Your task to perform on an android device: Search for pizza restaurants on Maps Image 0: 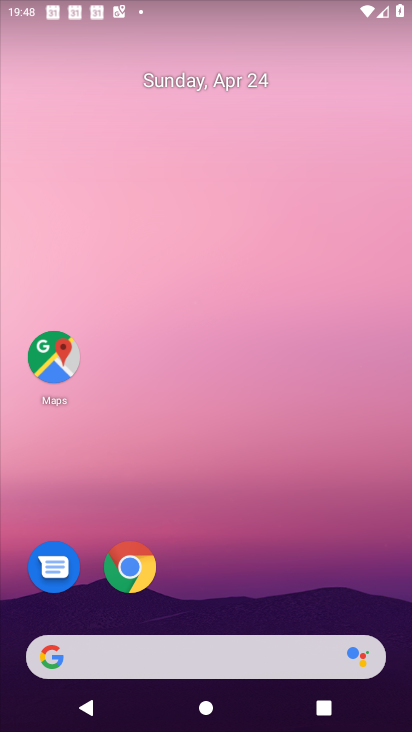
Step 0: drag from (312, 515) to (314, 184)
Your task to perform on an android device: Search for pizza restaurants on Maps Image 1: 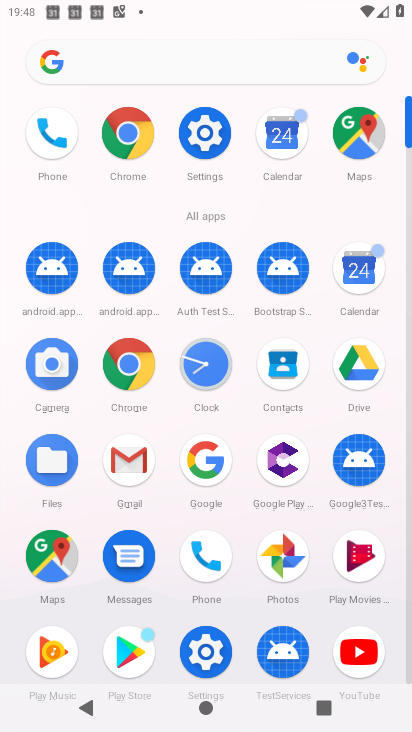
Step 1: click (365, 136)
Your task to perform on an android device: Search for pizza restaurants on Maps Image 2: 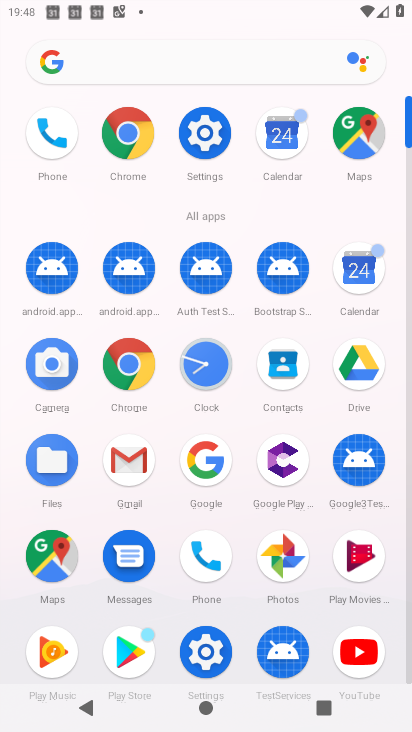
Step 2: click (356, 141)
Your task to perform on an android device: Search for pizza restaurants on Maps Image 3: 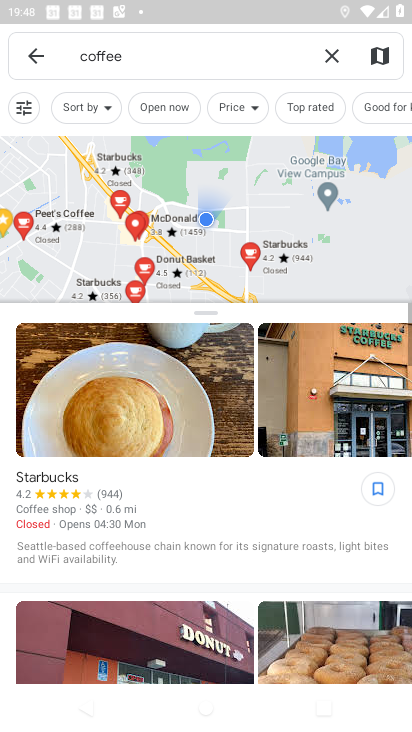
Step 3: click (336, 56)
Your task to perform on an android device: Search for pizza restaurants on Maps Image 4: 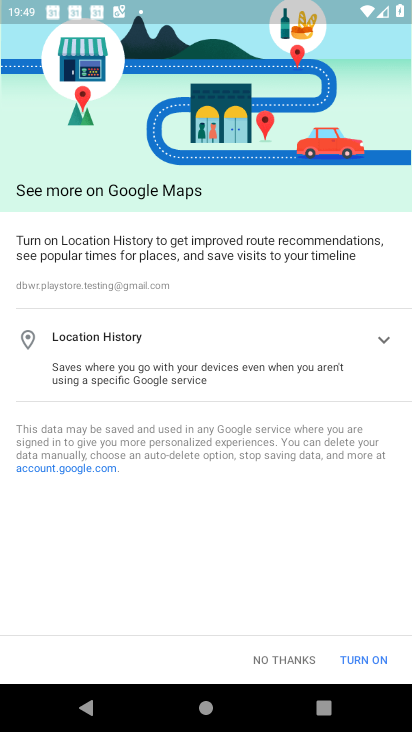
Step 4: click (273, 662)
Your task to perform on an android device: Search for pizza restaurants on Maps Image 5: 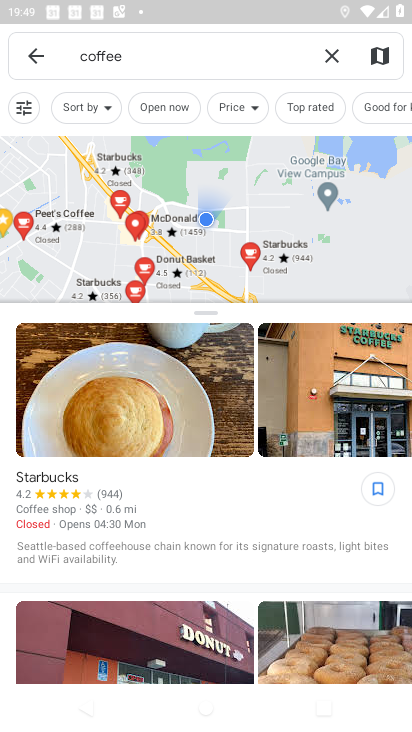
Step 5: click (325, 56)
Your task to perform on an android device: Search for pizza restaurants on Maps Image 6: 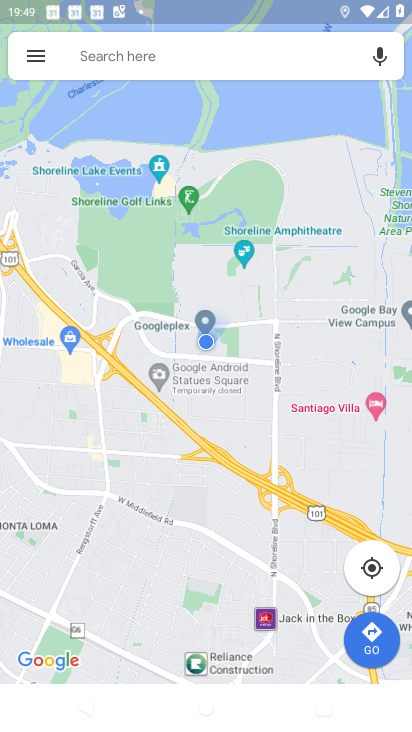
Step 6: click (172, 62)
Your task to perform on an android device: Search for pizza restaurants on Maps Image 7: 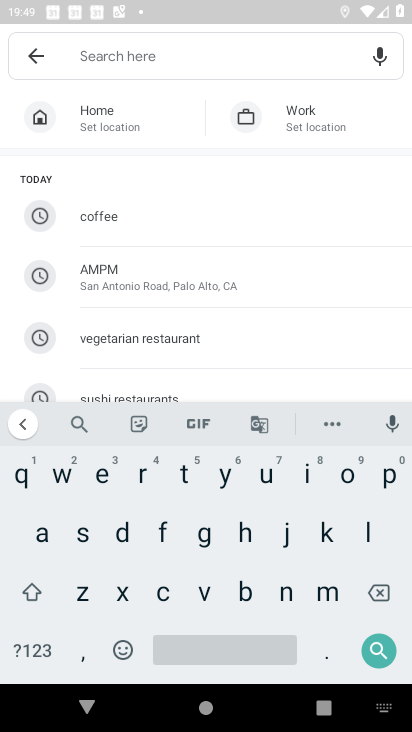
Step 7: drag from (152, 318) to (179, 208)
Your task to perform on an android device: Search for pizza restaurants on Maps Image 8: 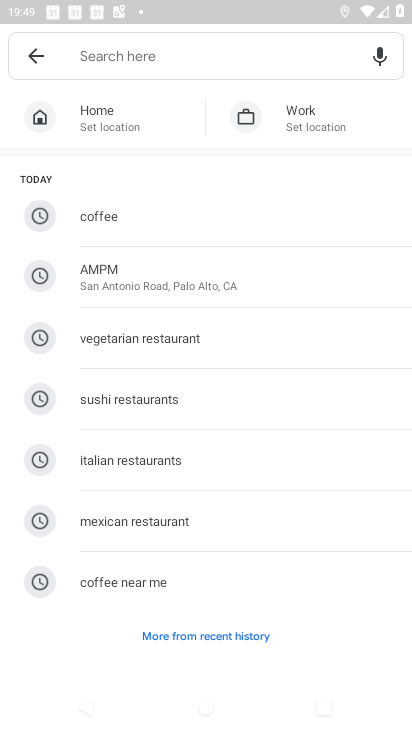
Step 8: click (160, 61)
Your task to perform on an android device: Search for pizza restaurants on Maps Image 9: 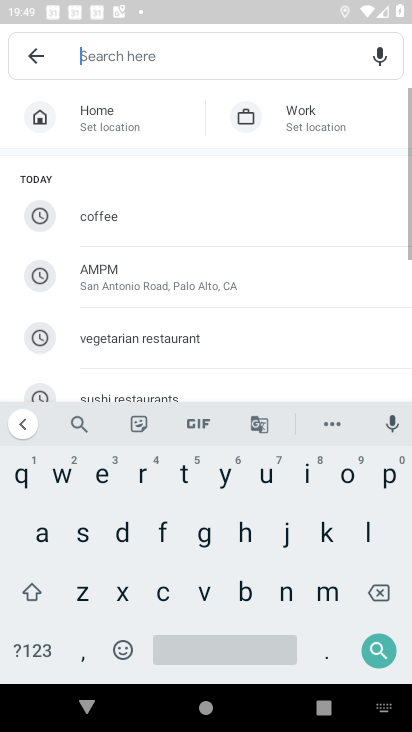
Step 9: click (390, 482)
Your task to perform on an android device: Search for pizza restaurants on Maps Image 10: 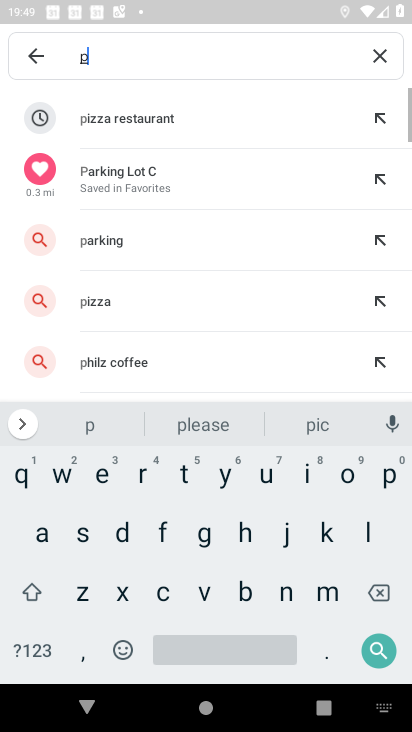
Step 10: click (158, 119)
Your task to perform on an android device: Search for pizza restaurants on Maps Image 11: 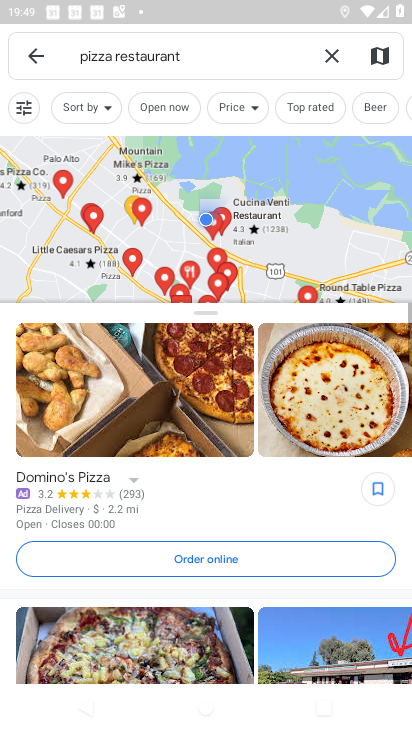
Step 11: task complete